Your task to perform on an android device: turn on airplane mode Image 0: 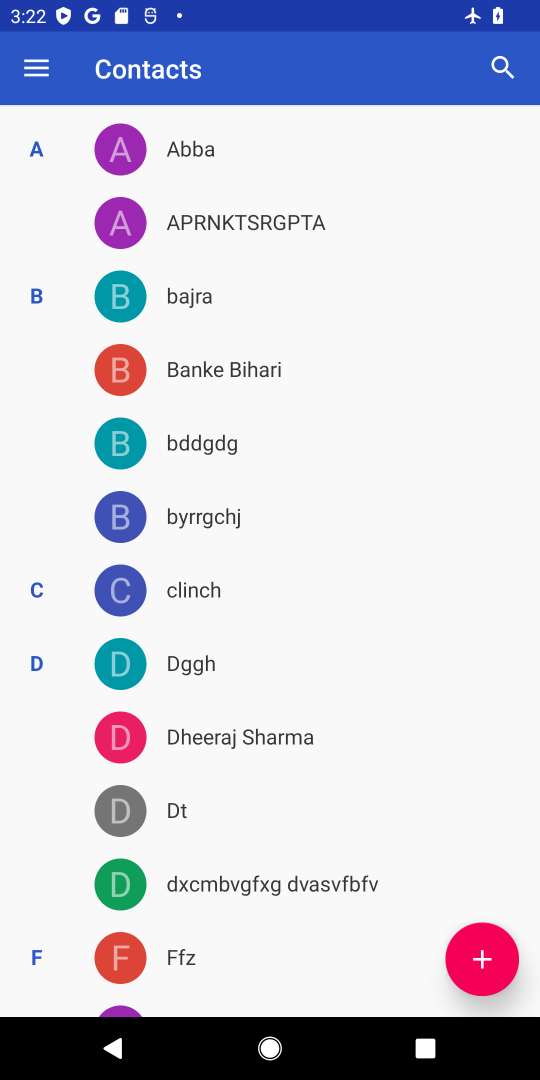
Step 0: press home button
Your task to perform on an android device: turn on airplane mode Image 1: 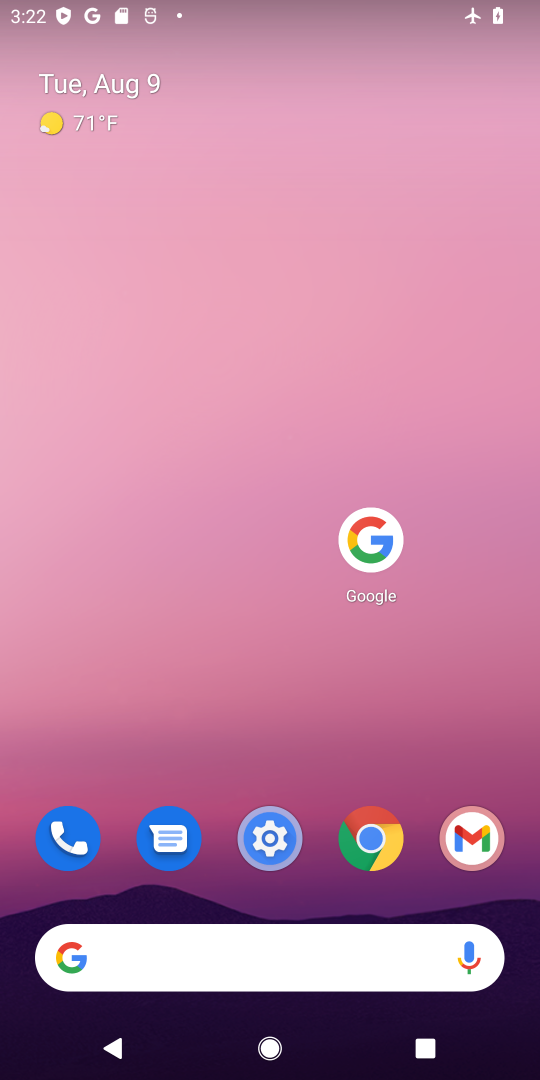
Step 1: drag from (268, 735) to (378, 170)
Your task to perform on an android device: turn on airplane mode Image 2: 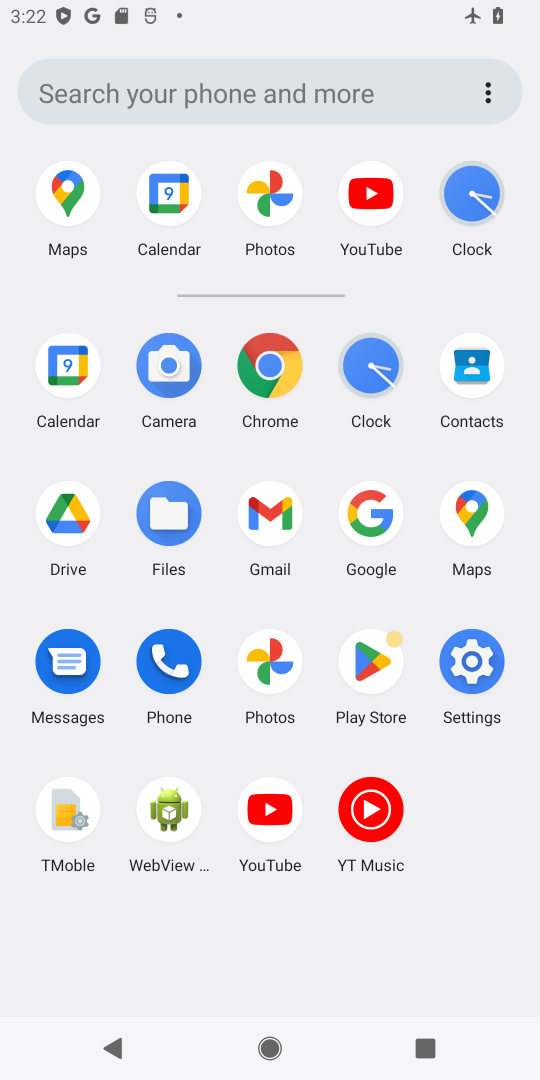
Step 2: click (461, 653)
Your task to perform on an android device: turn on airplane mode Image 3: 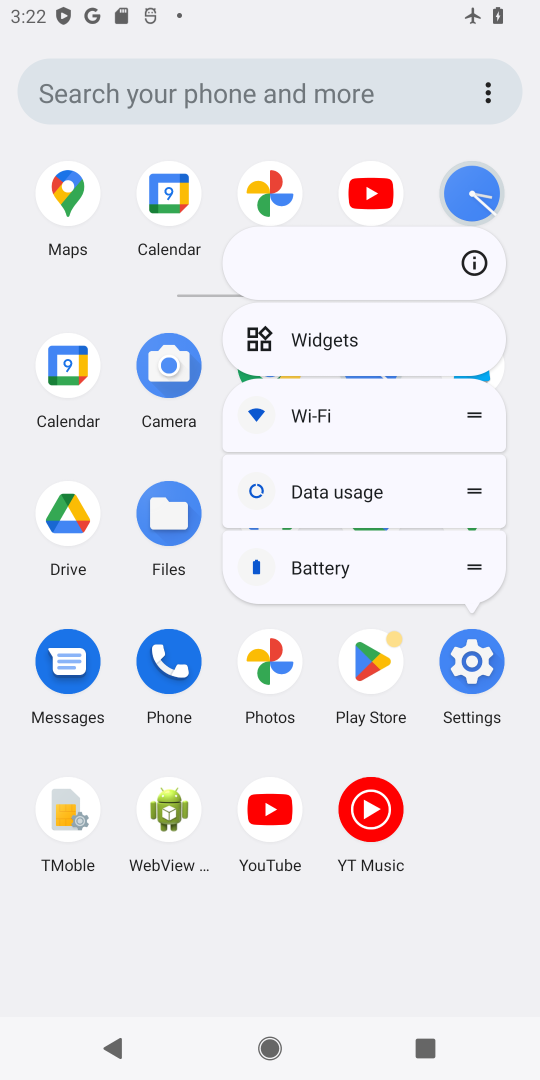
Step 3: click (474, 658)
Your task to perform on an android device: turn on airplane mode Image 4: 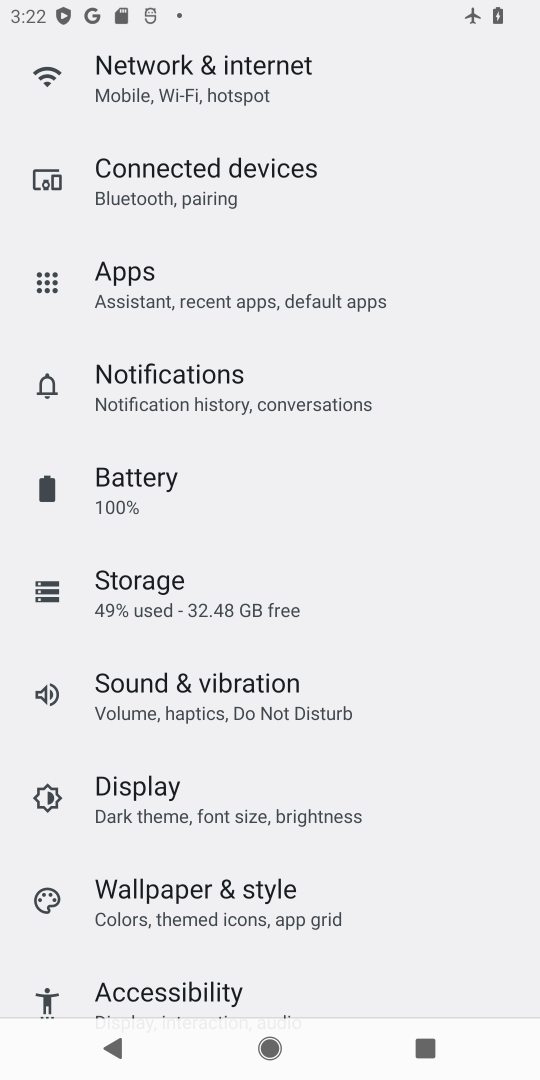
Step 4: drag from (358, 118) to (197, 629)
Your task to perform on an android device: turn on airplane mode Image 5: 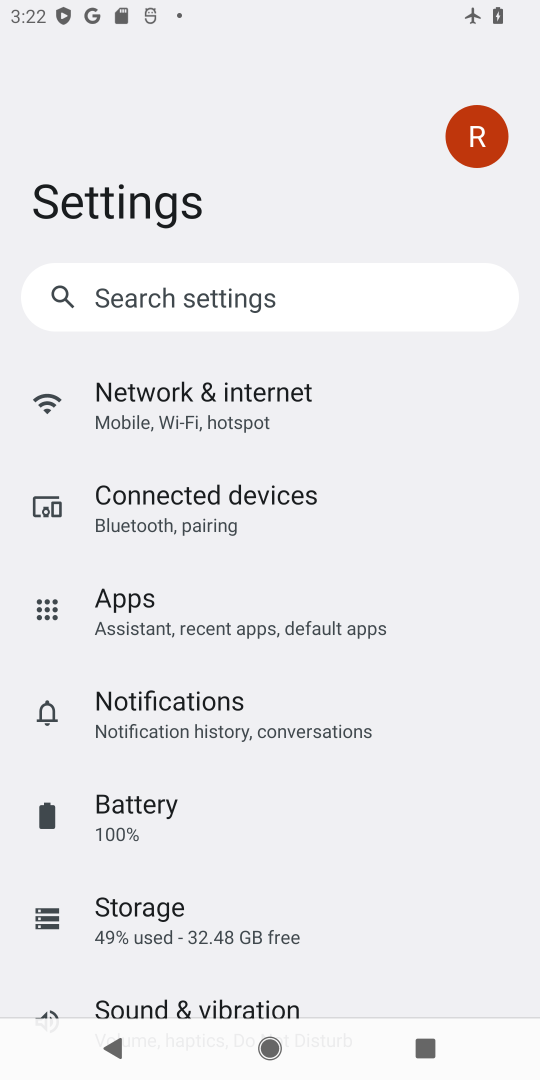
Step 5: click (226, 401)
Your task to perform on an android device: turn on airplane mode Image 6: 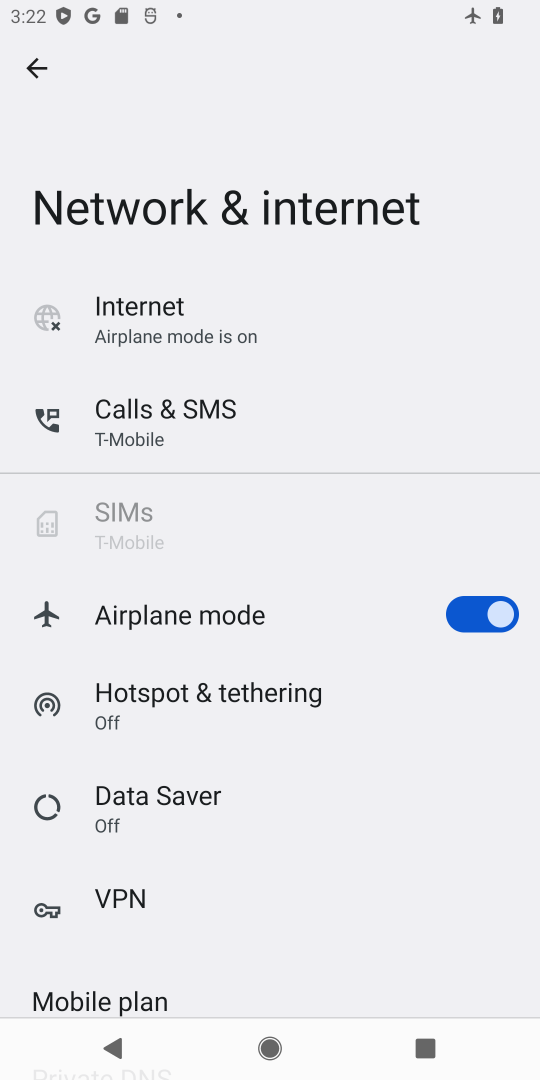
Step 6: task complete